Your task to perform on an android device: open a bookmark in the chrome app Image 0: 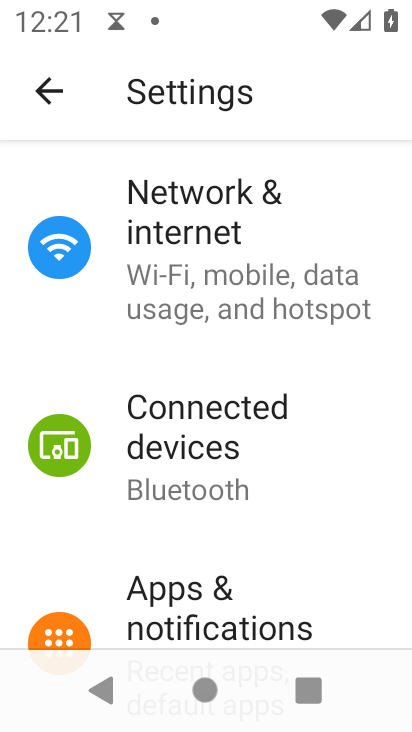
Step 0: press home button
Your task to perform on an android device: open a bookmark in the chrome app Image 1: 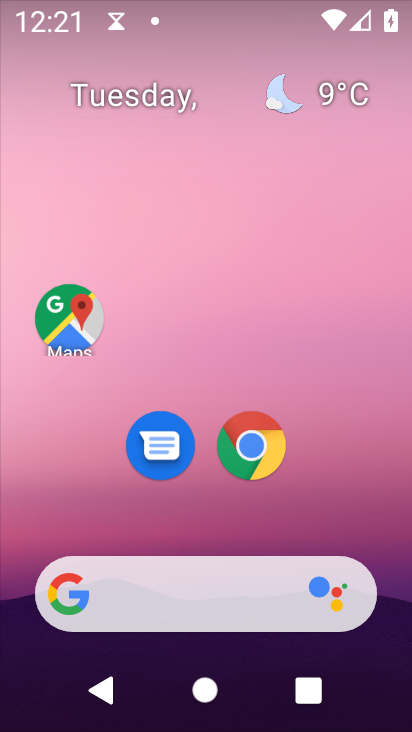
Step 1: drag from (120, 654) to (194, 8)
Your task to perform on an android device: open a bookmark in the chrome app Image 2: 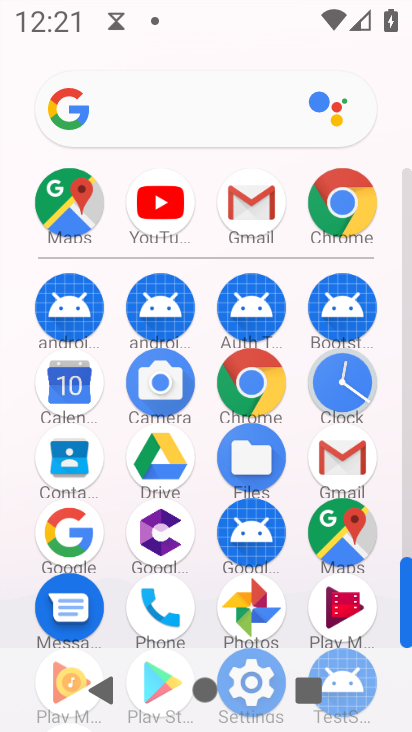
Step 2: click (251, 363)
Your task to perform on an android device: open a bookmark in the chrome app Image 3: 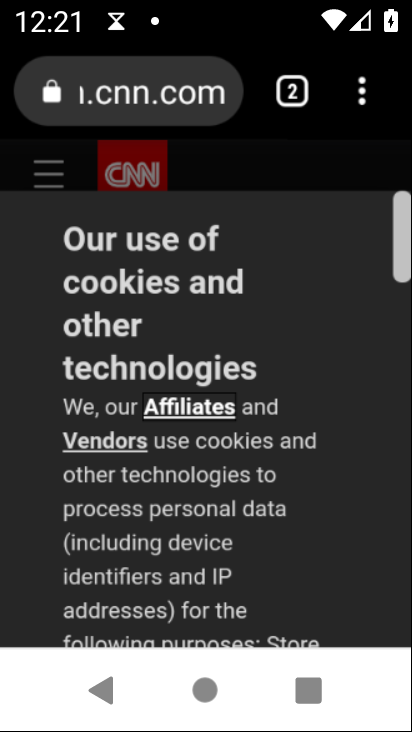
Step 3: click (346, 75)
Your task to perform on an android device: open a bookmark in the chrome app Image 4: 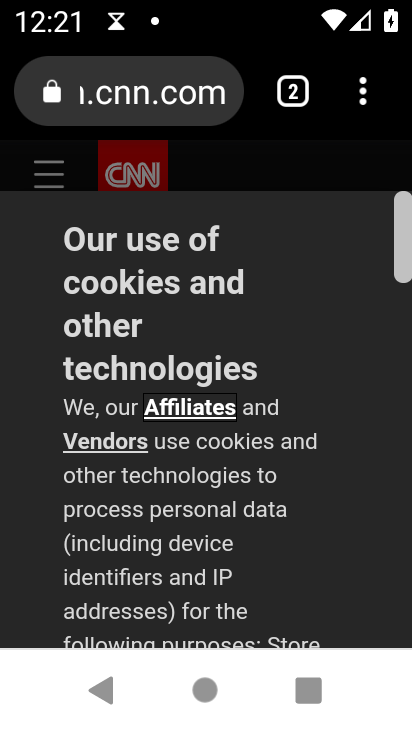
Step 4: task complete